Your task to perform on an android device: uninstall "NewsBreak: Local News & Alerts" Image 0: 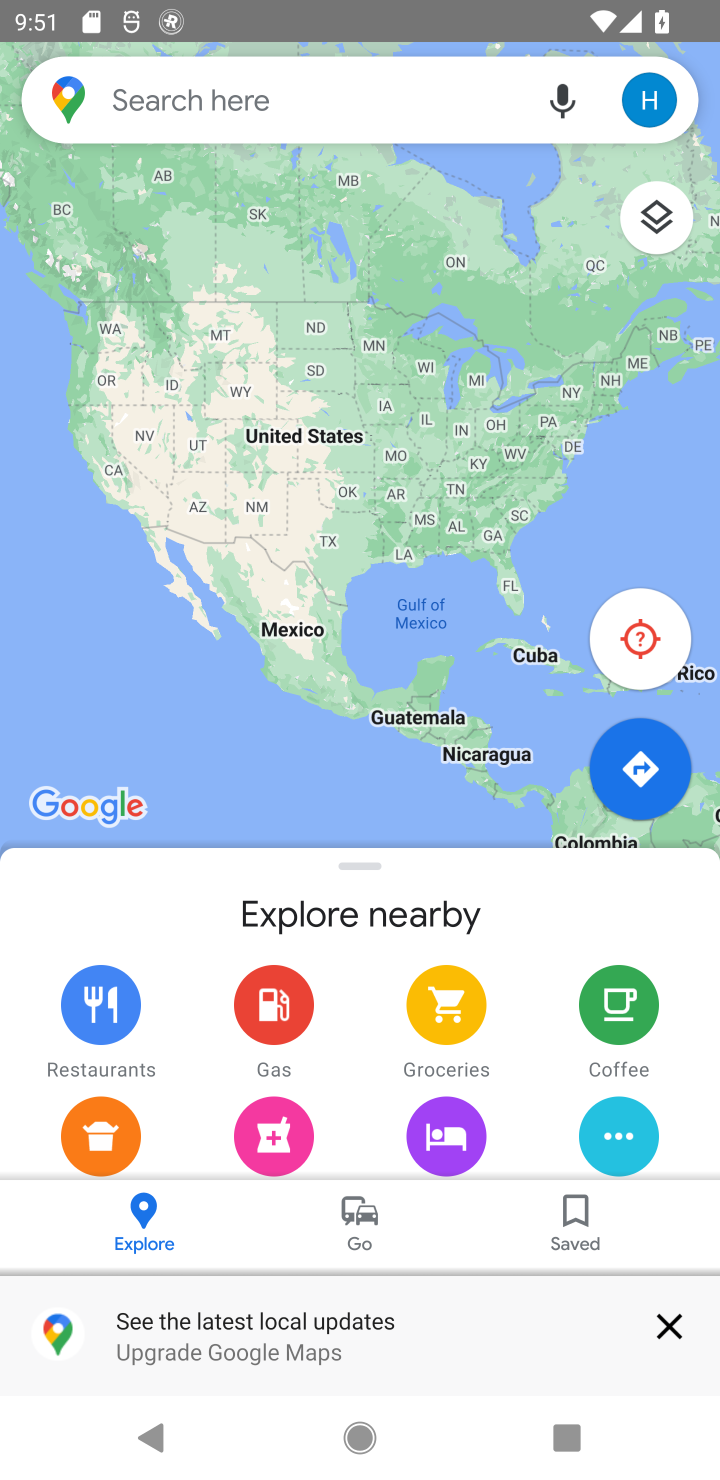
Step 0: press home button
Your task to perform on an android device: uninstall "NewsBreak: Local News & Alerts" Image 1: 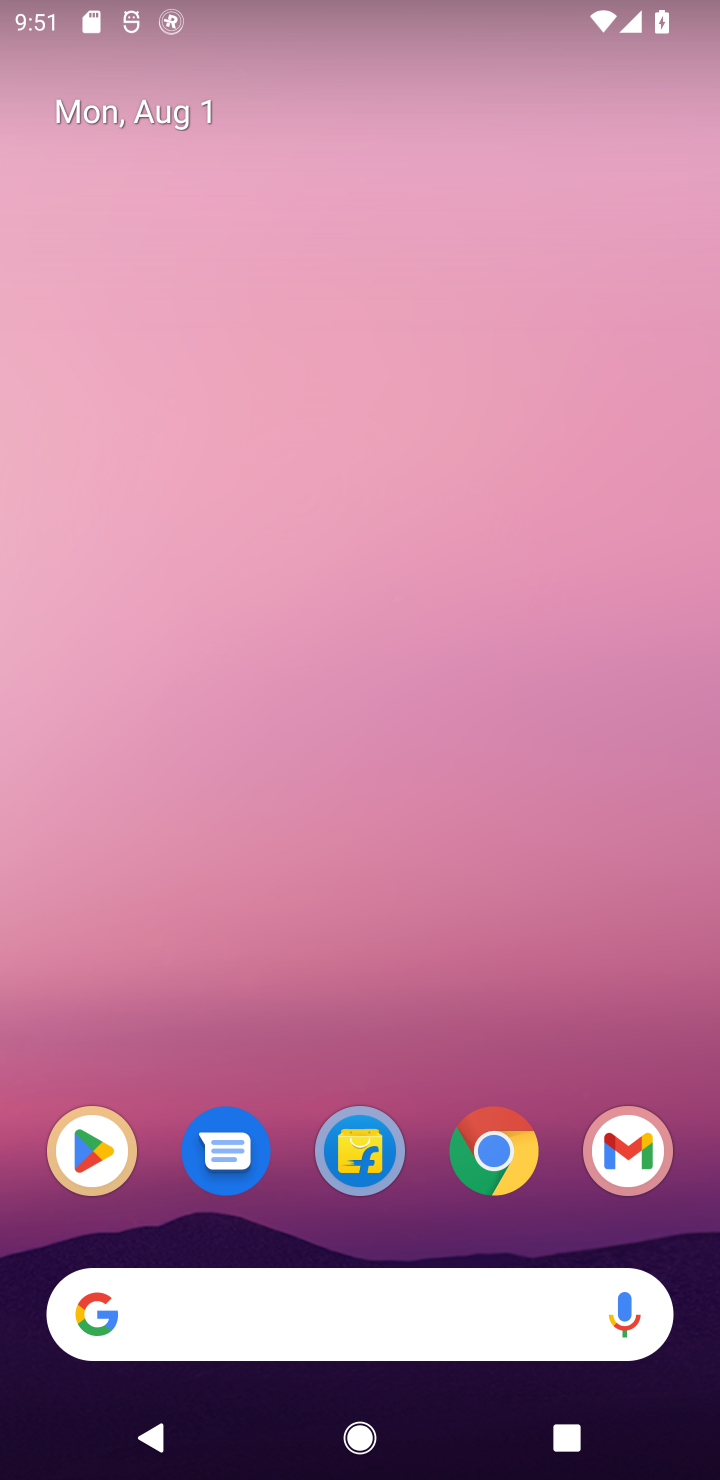
Step 1: click (116, 1139)
Your task to perform on an android device: uninstall "NewsBreak: Local News & Alerts" Image 2: 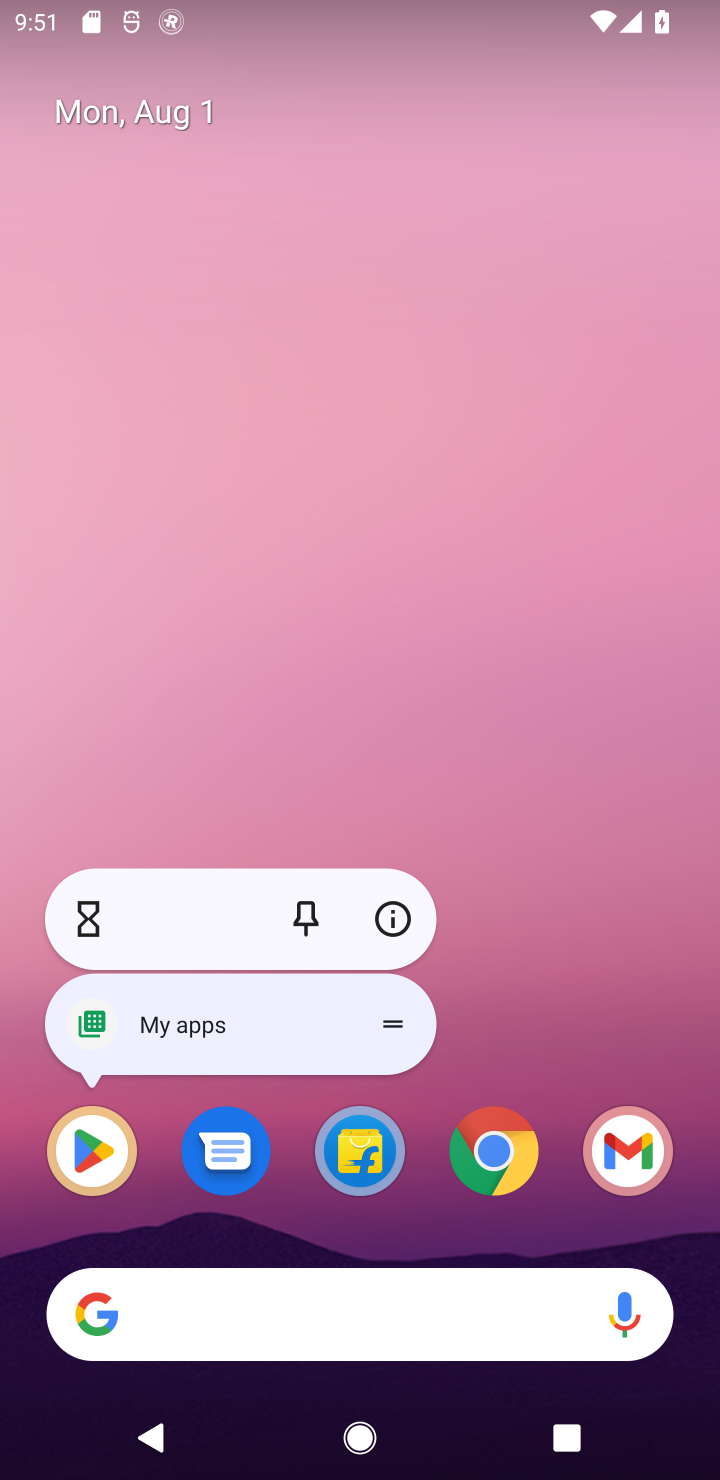
Step 2: click (112, 1124)
Your task to perform on an android device: uninstall "NewsBreak: Local News & Alerts" Image 3: 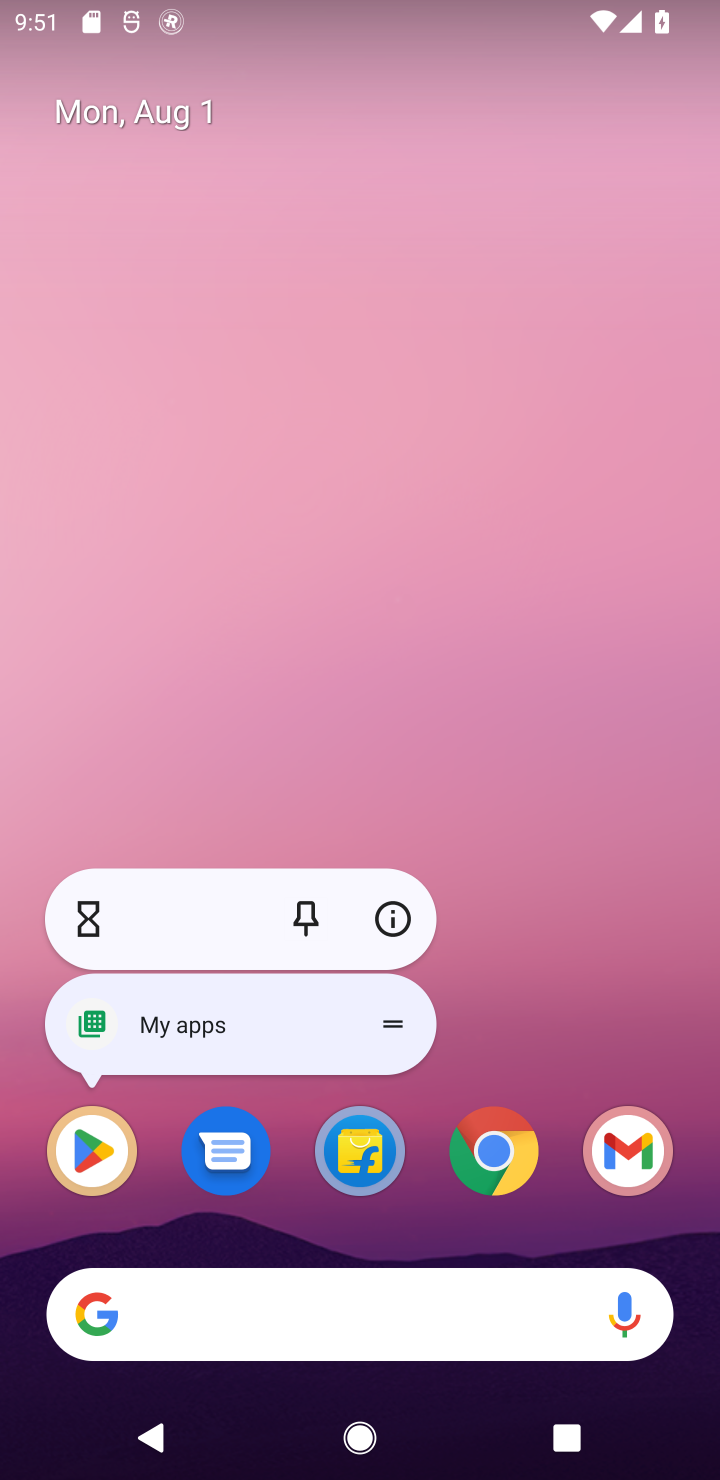
Step 3: click (112, 1124)
Your task to perform on an android device: uninstall "NewsBreak: Local News & Alerts" Image 4: 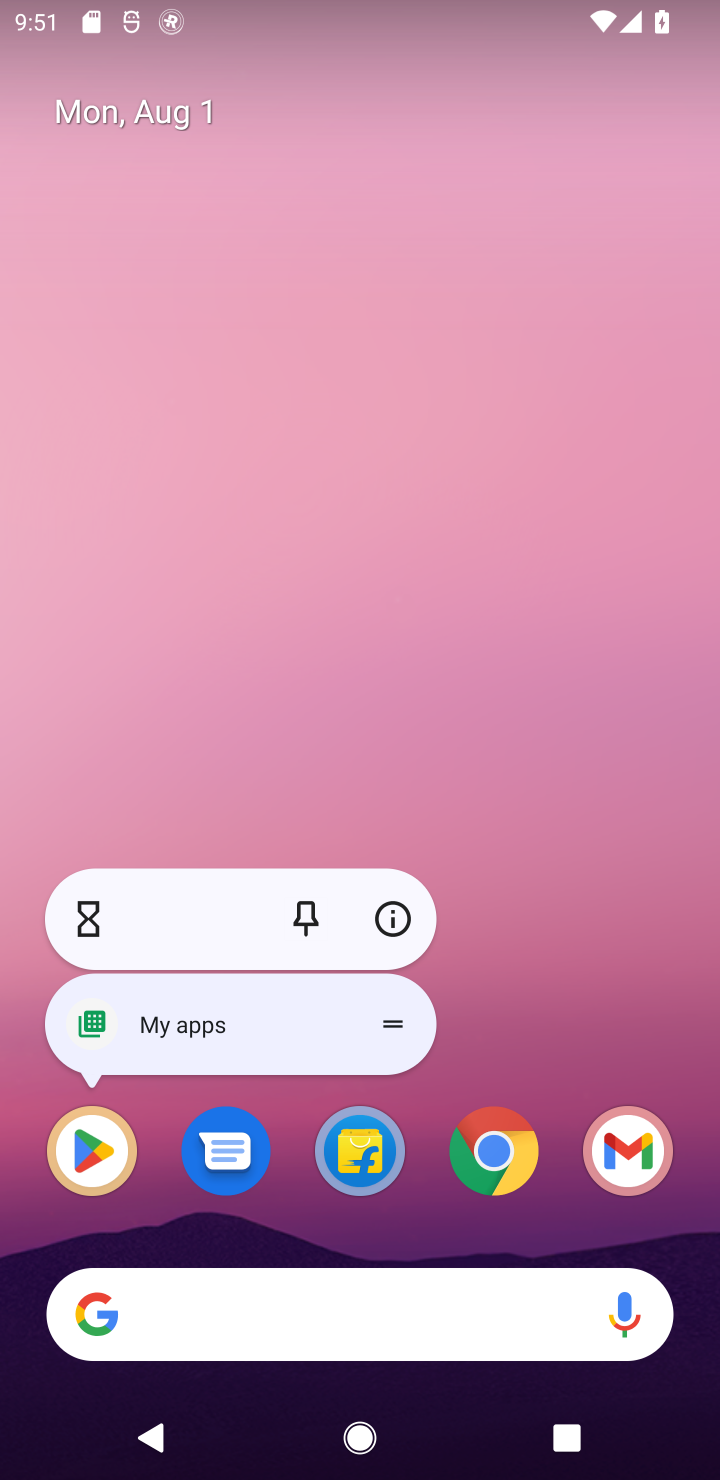
Step 4: click (90, 1138)
Your task to perform on an android device: uninstall "NewsBreak: Local News & Alerts" Image 5: 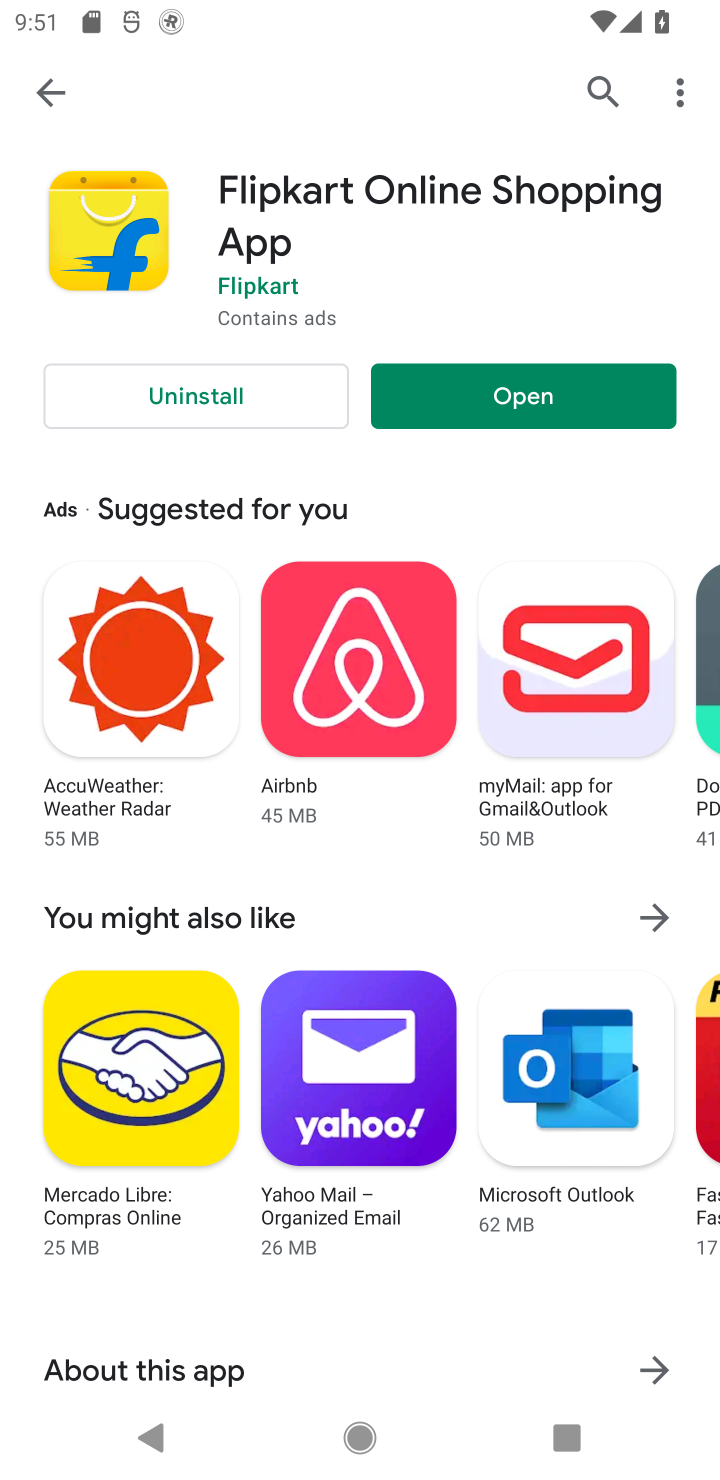
Step 5: click (608, 97)
Your task to perform on an android device: uninstall "NewsBreak: Local News & Alerts" Image 6: 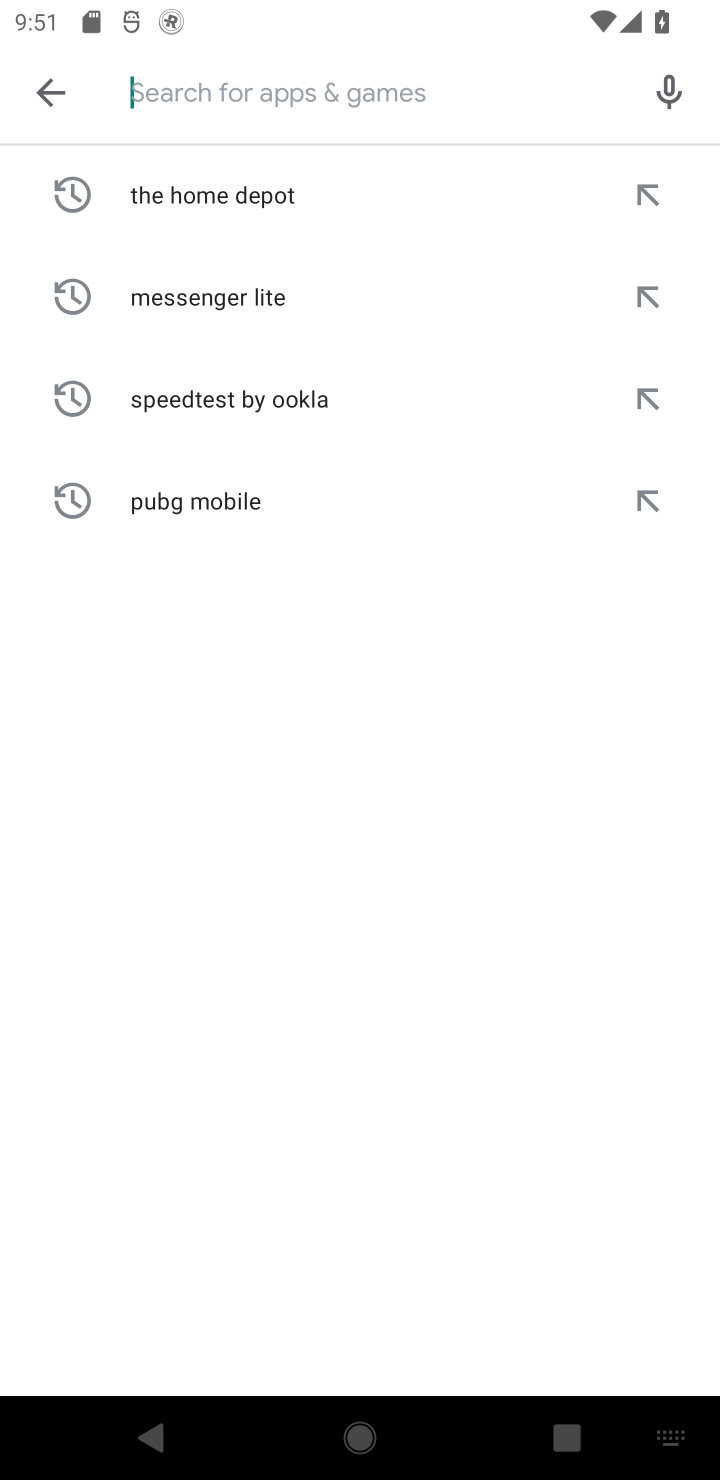
Step 6: type "NewsBreak: Local News & Alerts"
Your task to perform on an android device: uninstall "NewsBreak: Local News & Alerts" Image 7: 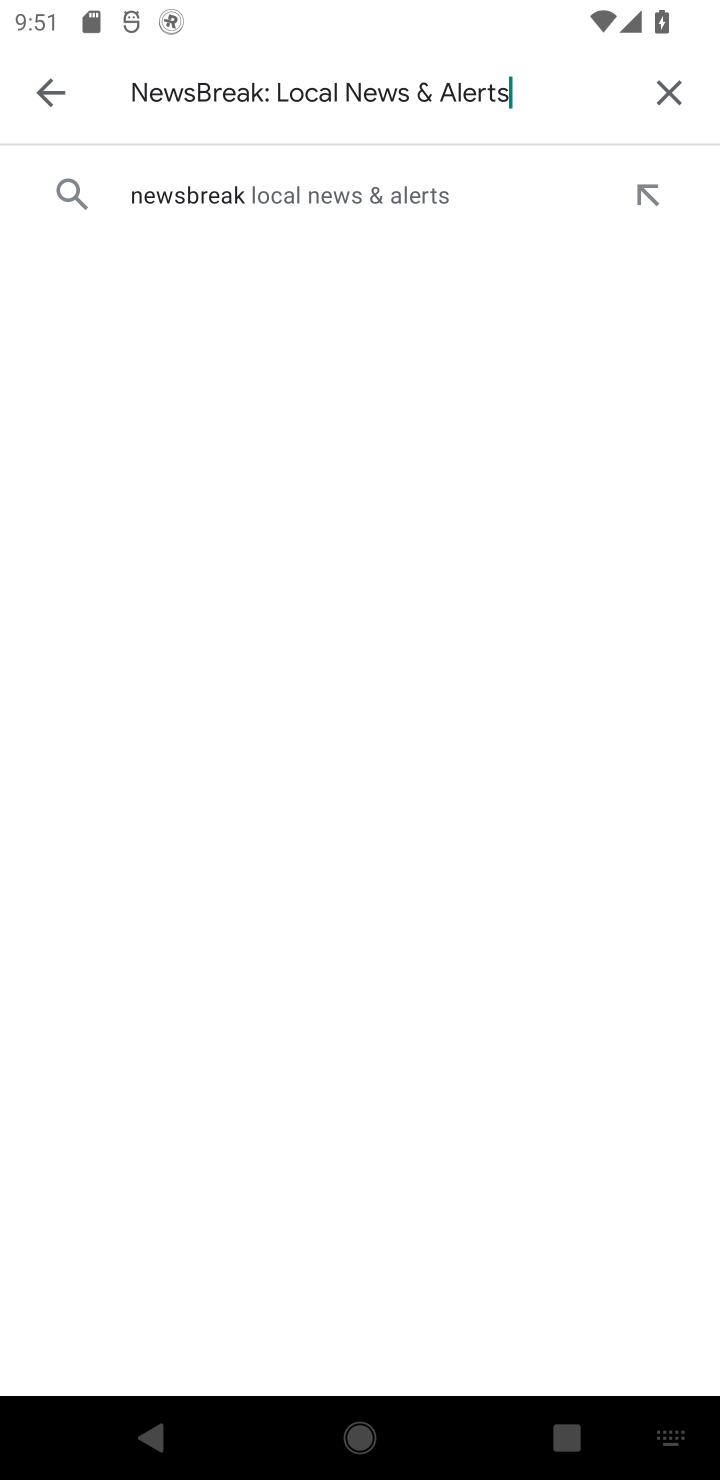
Step 7: click (395, 217)
Your task to perform on an android device: uninstall "NewsBreak: Local News & Alerts" Image 8: 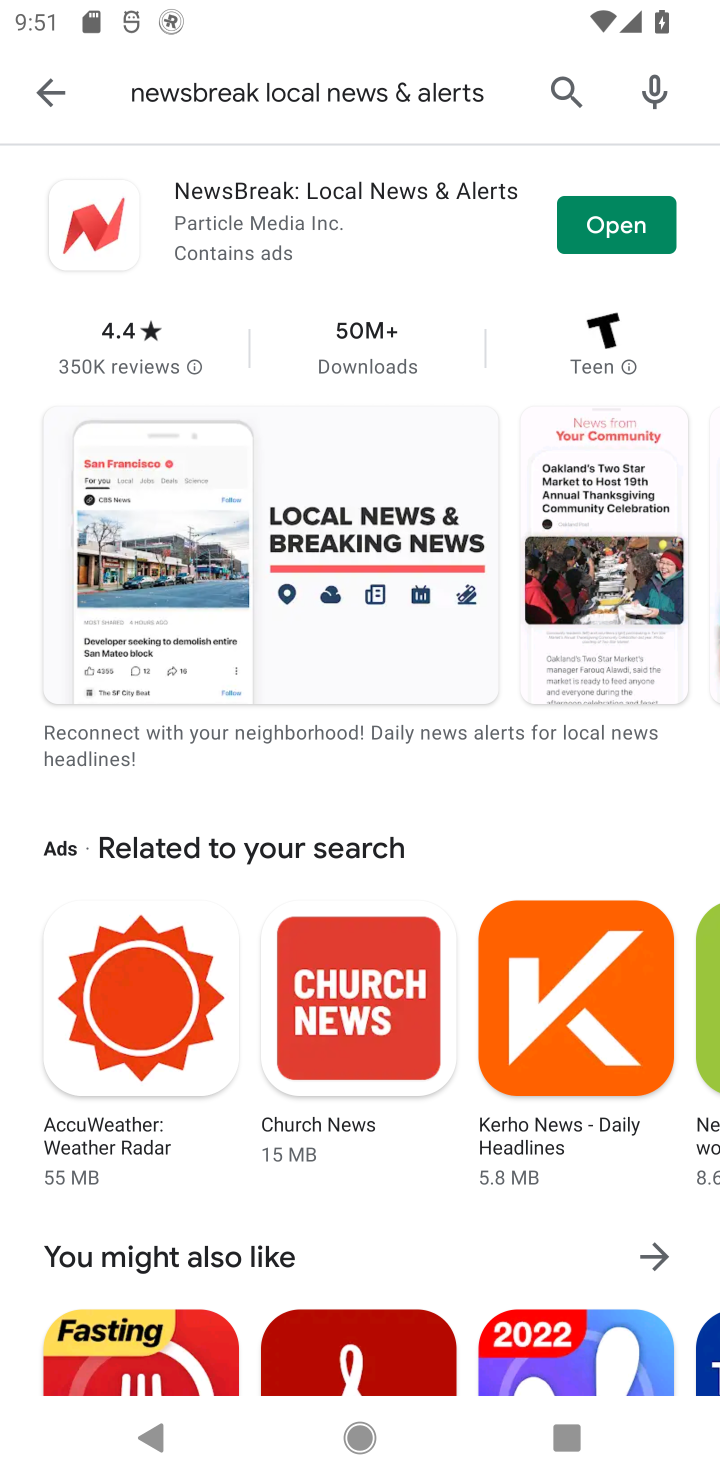
Step 8: click (371, 228)
Your task to perform on an android device: uninstall "NewsBreak: Local News & Alerts" Image 9: 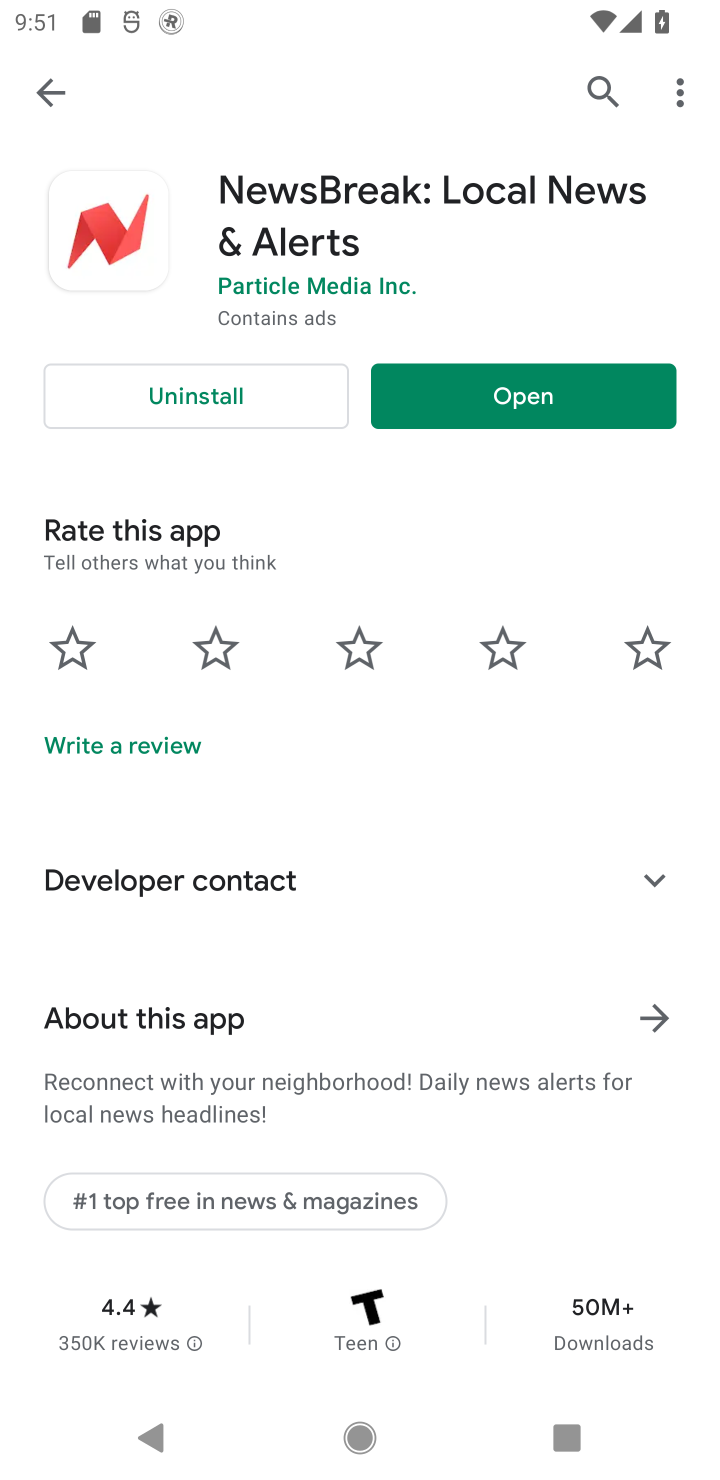
Step 9: click (217, 415)
Your task to perform on an android device: uninstall "NewsBreak: Local News & Alerts" Image 10: 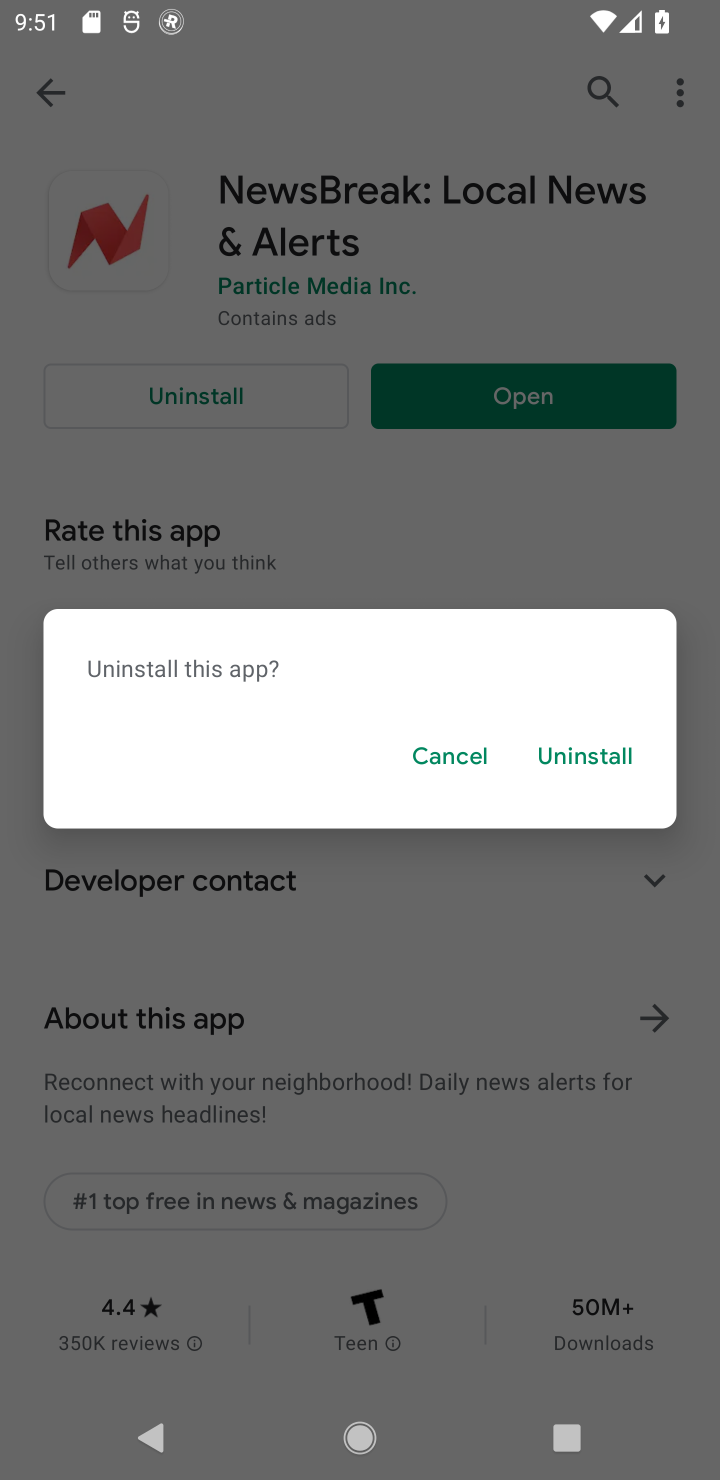
Step 10: click (580, 748)
Your task to perform on an android device: uninstall "NewsBreak: Local News & Alerts" Image 11: 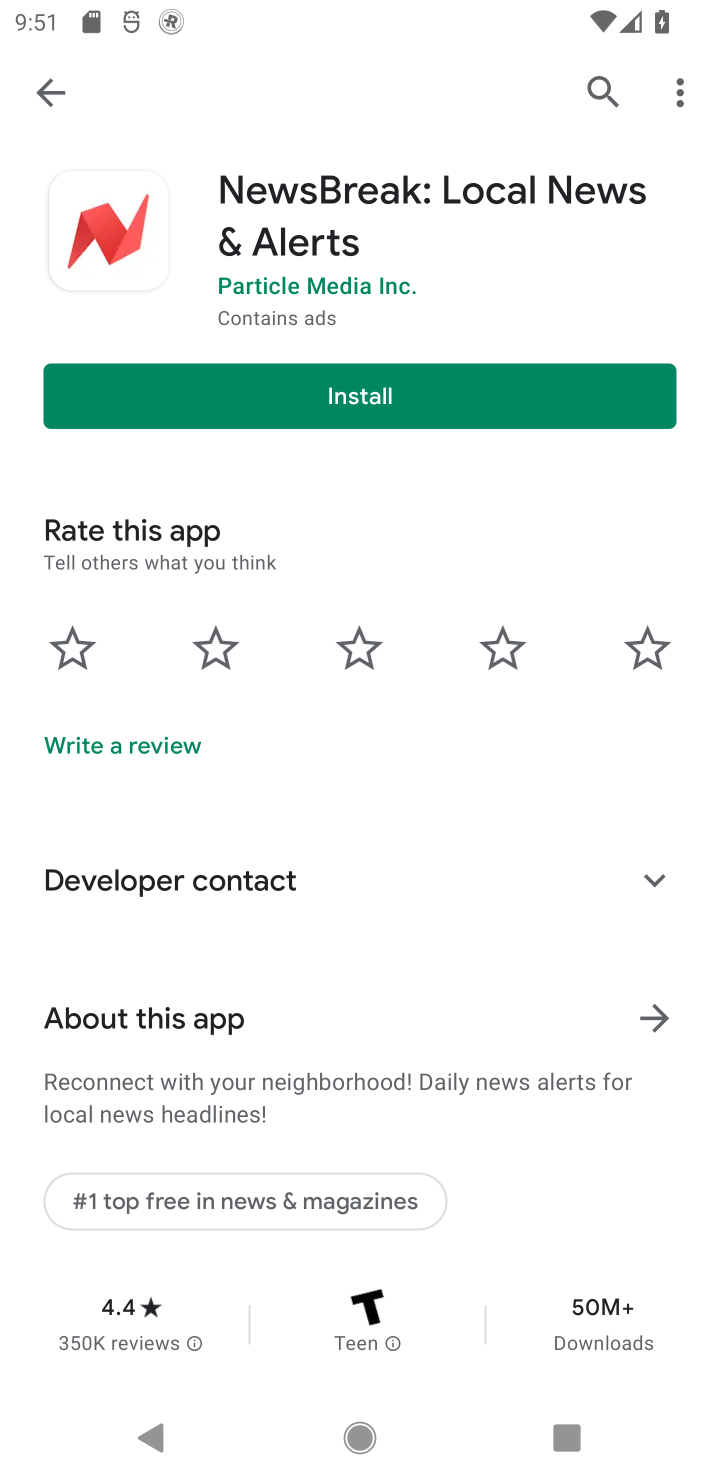
Step 11: task complete